Your task to perform on an android device: find snoozed emails in the gmail app Image 0: 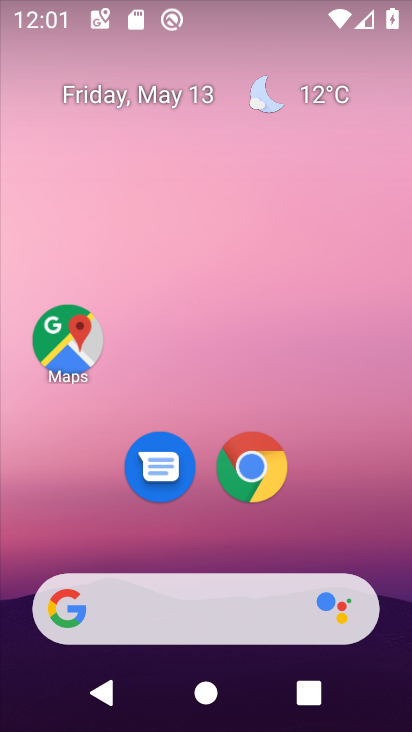
Step 0: drag from (318, 529) to (230, 63)
Your task to perform on an android device: find snoozed emails in the gmail app Image 1: 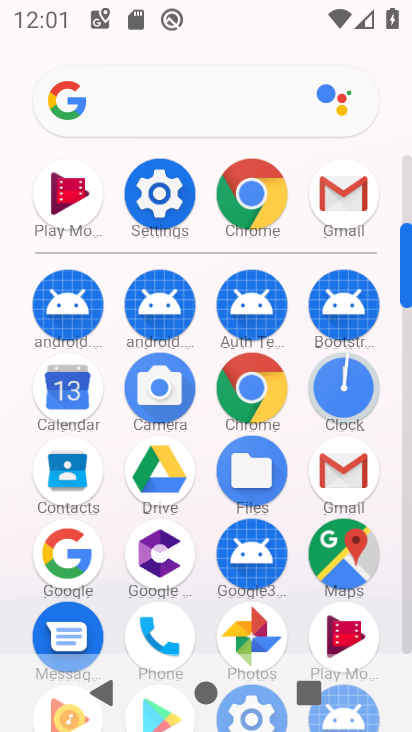
Step 1: click (354, 199)
Your task to perform on an android device: find snoozed emails in the gmail app Image 2: 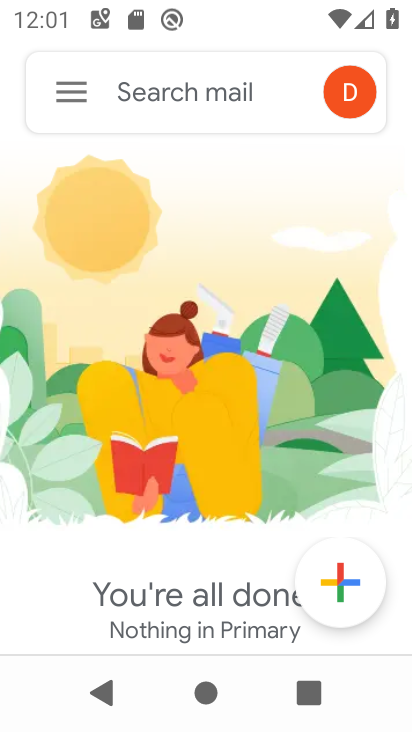
Step 2: click (65, 89)
Your task to perform on an android device: find snoozed emails in the gmail app Image 3: 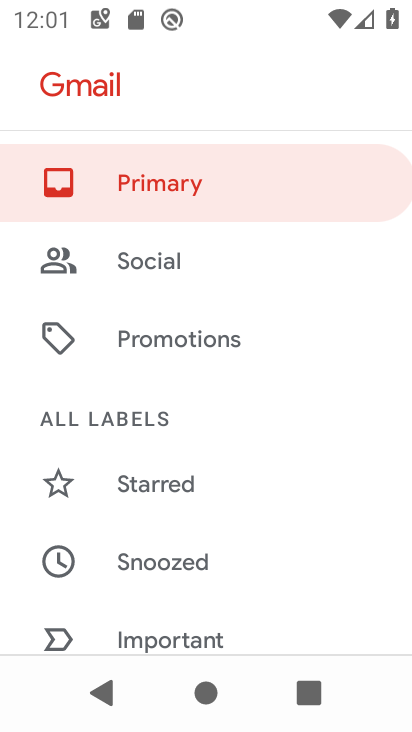
Step 3: click (201, 556)
Your task to perform on an android device: find snoozed emails in the gmail app Image 4: 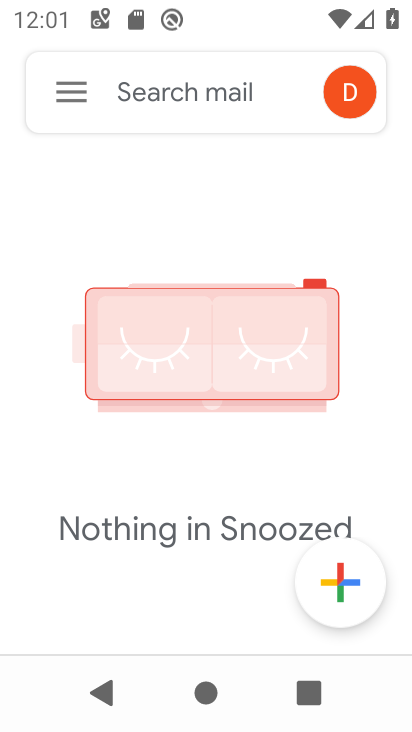
Step 4: task complete